Your task to perform on an android device: set the timer Image 0: 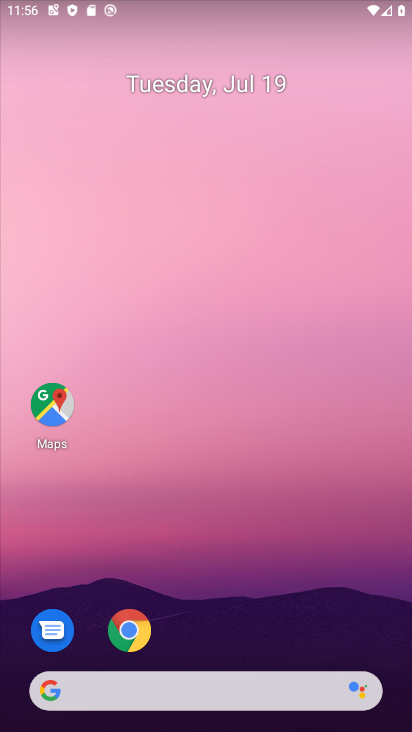
Step 0: click (184, 35)
Your task to perform on an android device: set the timer Image 1: 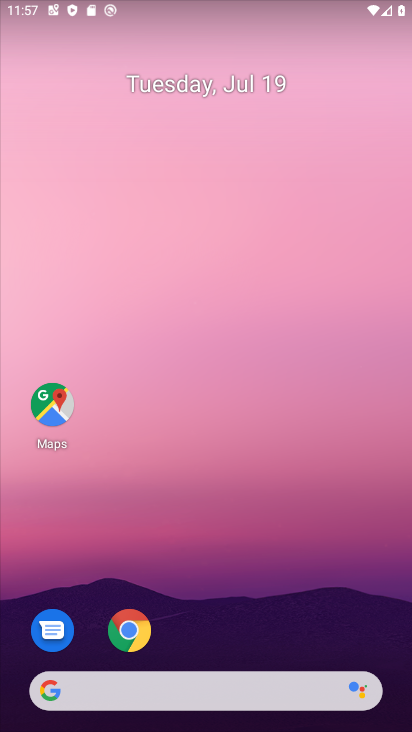
Step 1: drag from (262, 482) to (203, 5)
Your task to perform on an android device: set the timer Image 2: 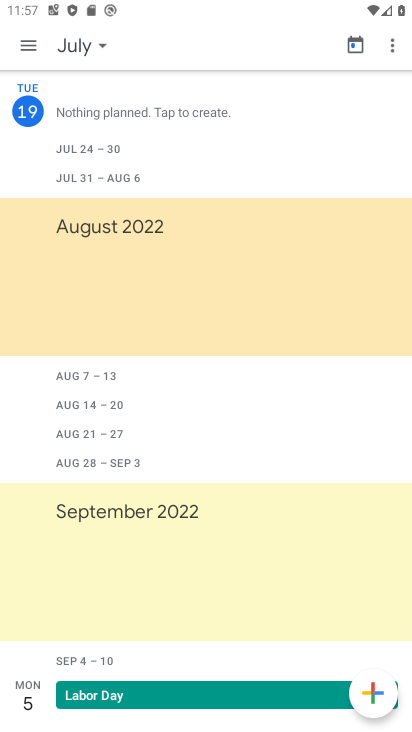
Step 2: drag from (268, 344) to (215, 8)
Your task to perform on an android device: set the timer Image 3: 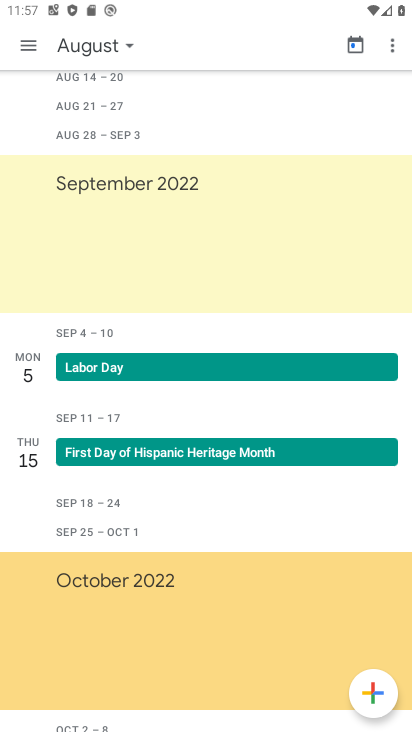
Step 3: press back button
Your task to perform on an android device: set the timer Image 4: 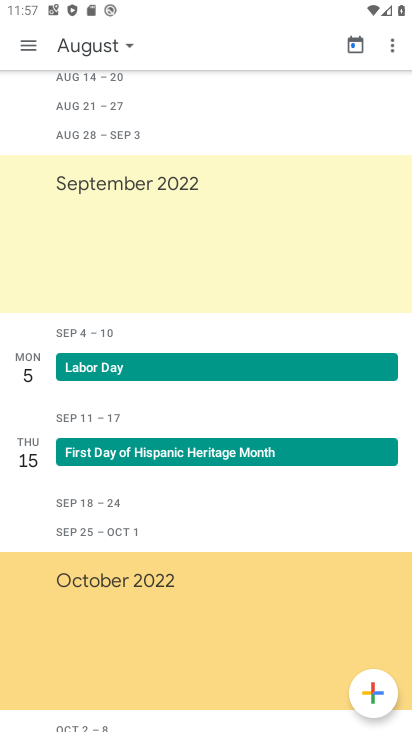
Step 4: press back button
Your task to perform on an android device: set the timer Image 5: 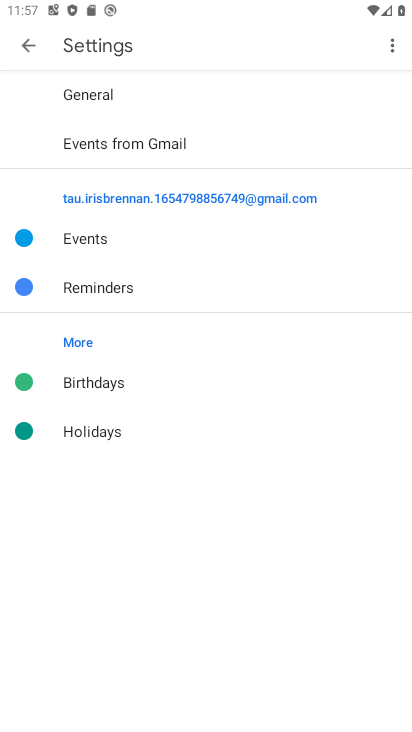
Step 5: press back button
Your task to perform on an android device: set the timer Image 6: 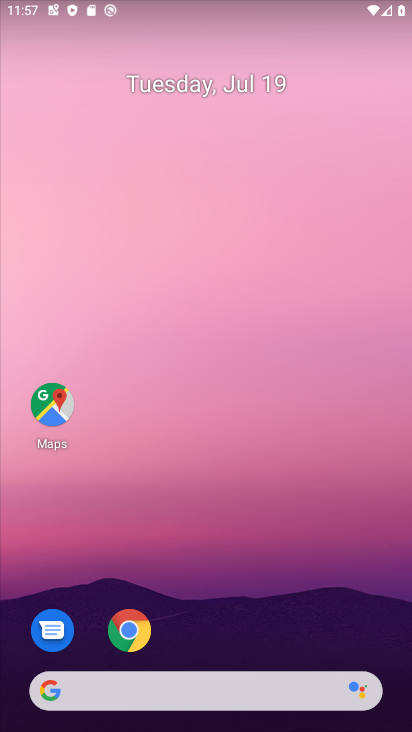
Step 6: drag from (229, 442) to (166, 24)
Your task to perform on an android device: set the timer Image 7: 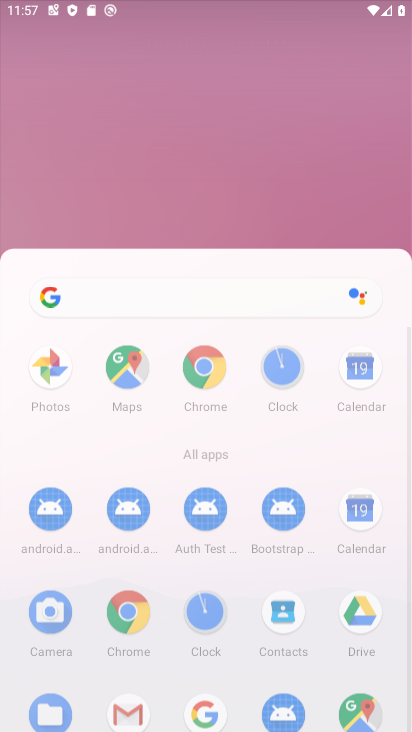
Step 7: drag from (201, 355) to (192, 59)
Your task to perform on an android device: set the timer Image 8: 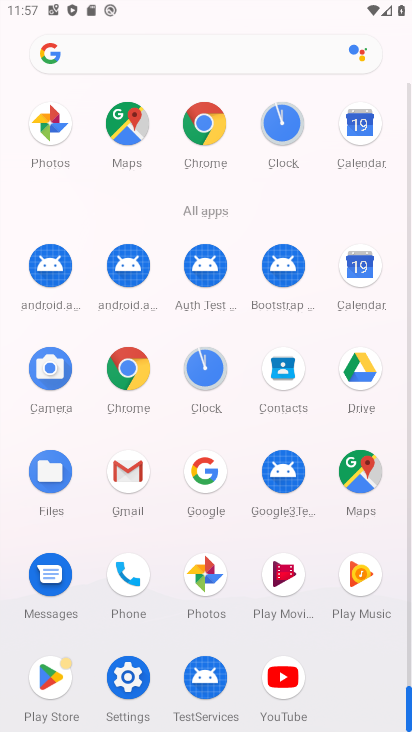
Step 8: click (276, 122)
Your task to perform on an android device: set the timer Image 9: 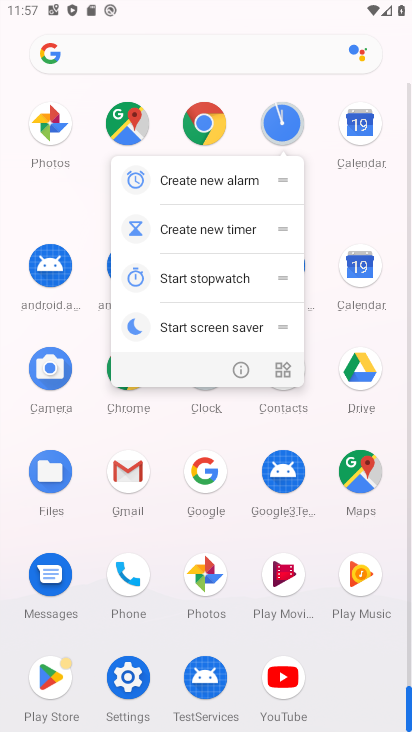
Step 9: click (278, 123)
Your task to perform on an android device: set the timer Image 10: 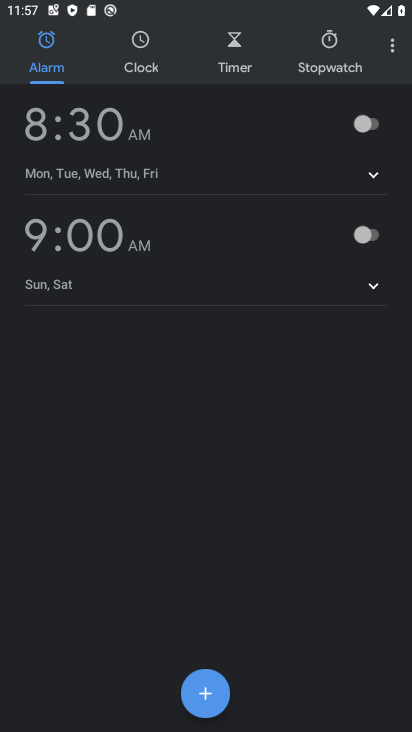
Step 10: click (394, 48)
Your task to perform on an android device: set the timer Image 11: 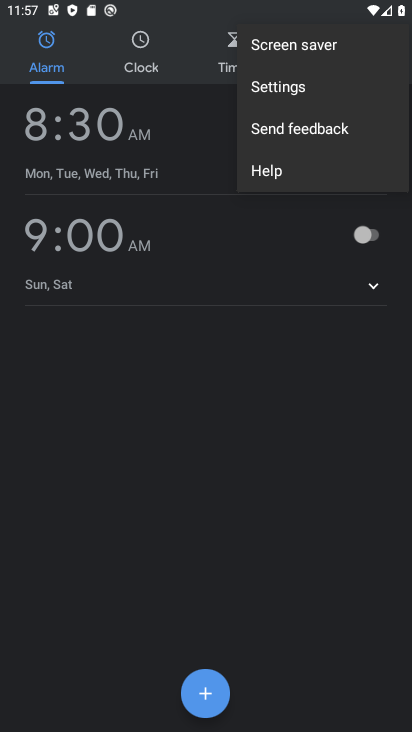
Step 11: click (296, 86)
Your task to perform on an android device: set the timer Image 12: 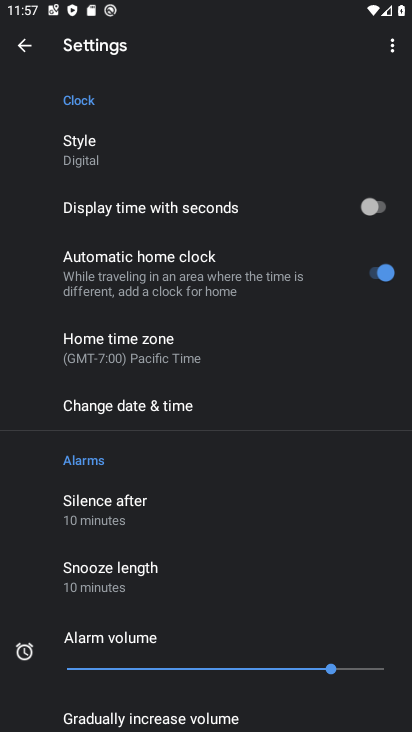
Step 12: click (18, 39)
Your task to perform on an android device: set the timer Image 13: 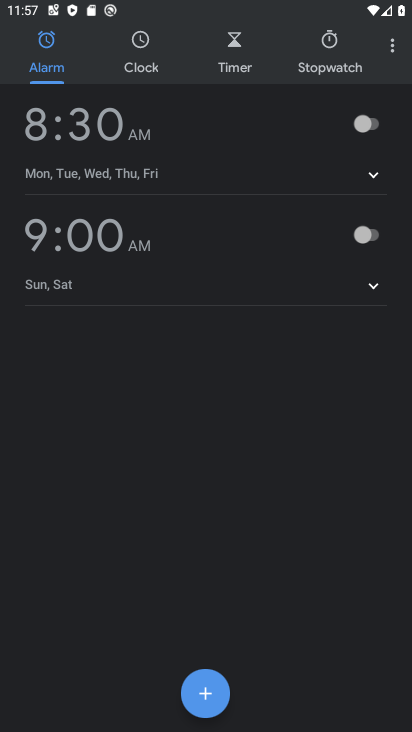
Step 13: click (238, 56)
Your task to perform on an android device: set the timer Image 14: 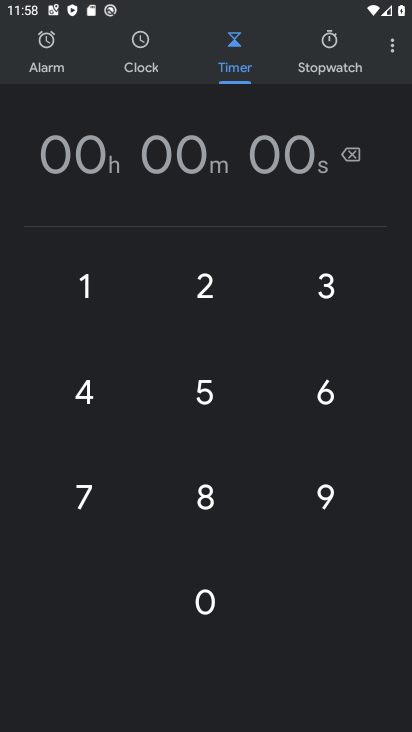
Step 14: click (204, 386)
Your task to perform on an android device: set the timer Image 15: 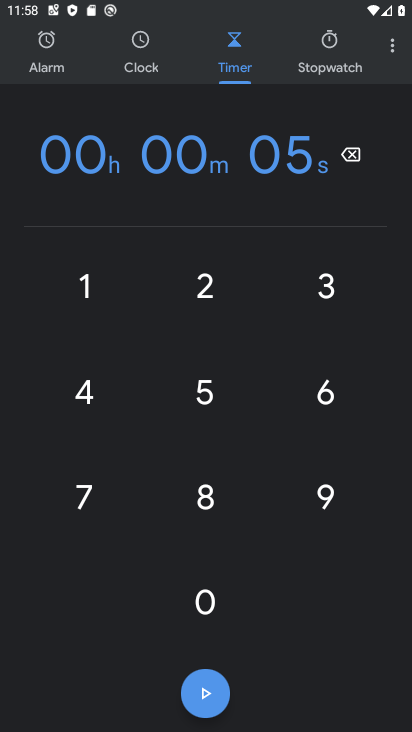
Step 15: click (198, 693)
Your task to perform on an android device: set the timer Image 16: 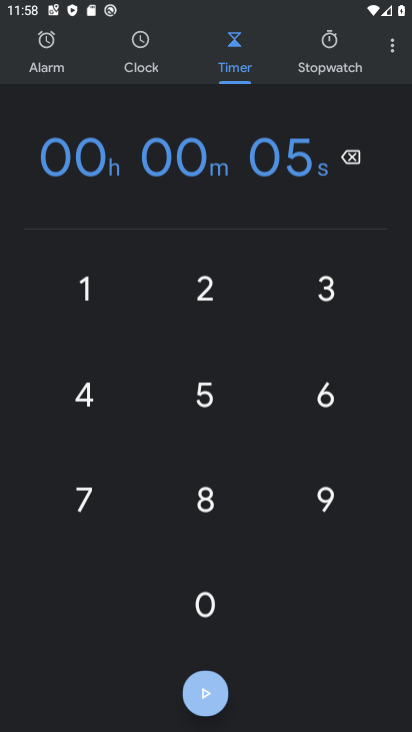
Step 16: click (199, 688)
Your task to perform on an android device: set the timer Image 17: 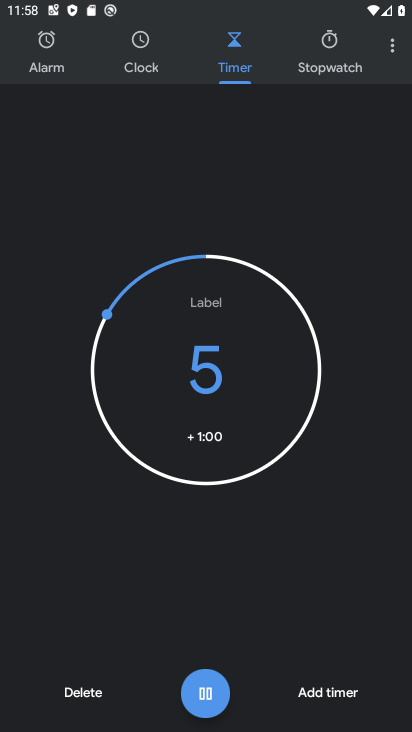
Step 17: click (214, 693)
Your task to perform on an android device: set the timer Image 18: 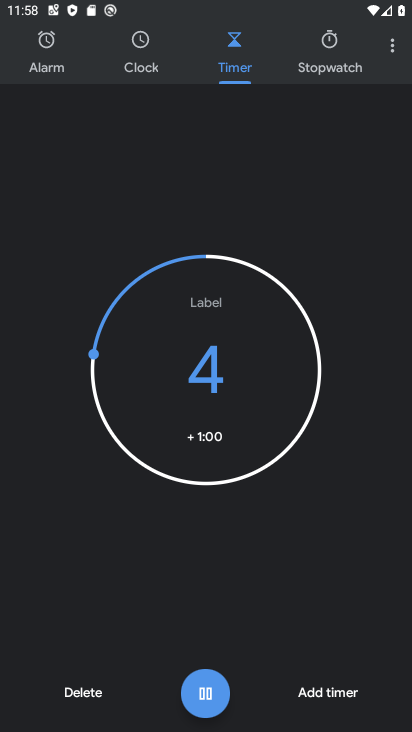
Step 18: click (216, 693)
Your task to perform on an android device: set the timer Image 19: 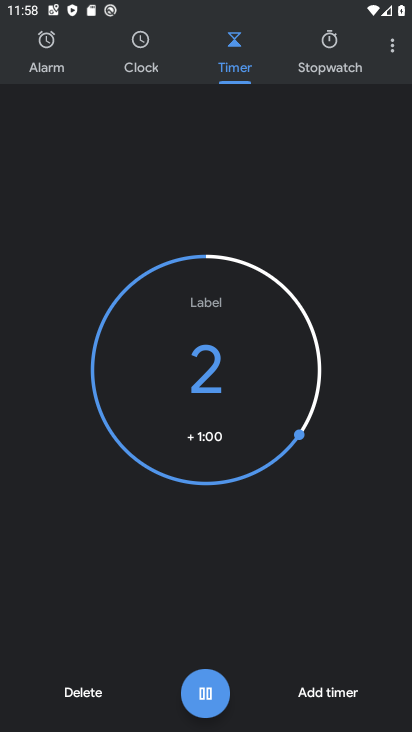
Step 19: click (202, 702)
Your task to perform on an android device: set the timer Image 20: 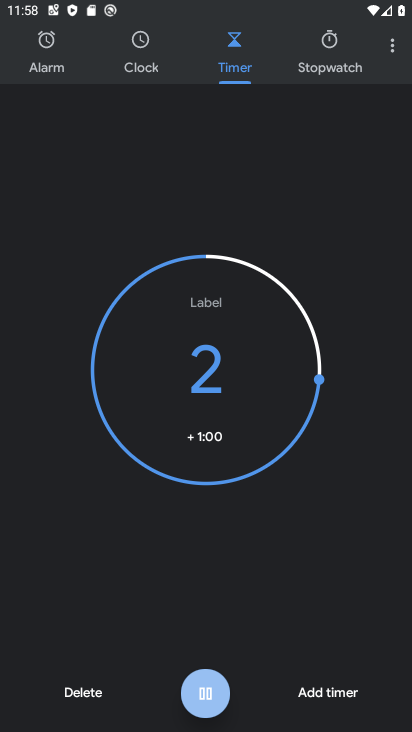
Step 20: click (202, 702)
Your task to perform on an android device: set the timer Image 21: 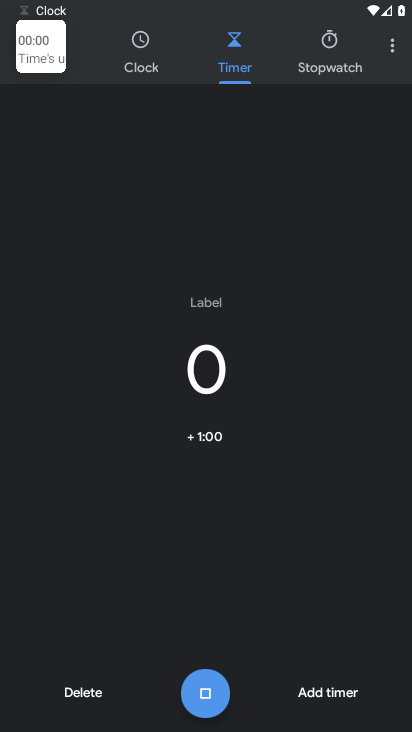
Step 21: click (208, 696)
Your task to perform on an android device: set the timer Image 22: 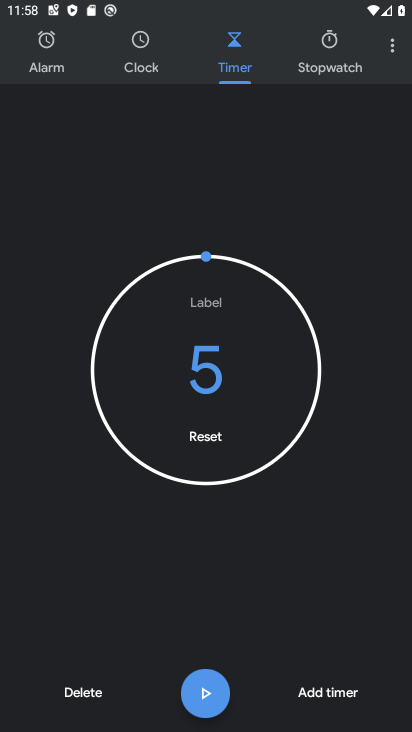
Step 22: task complete